Your task to perform on an android device: Go to ESPN.com Image 0: 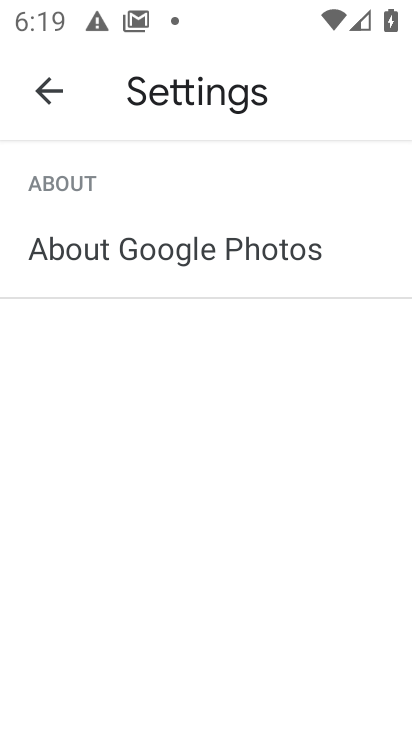
Step 0: press home button
Your task to perform on an android device: Go to ESPN.com Image 1: 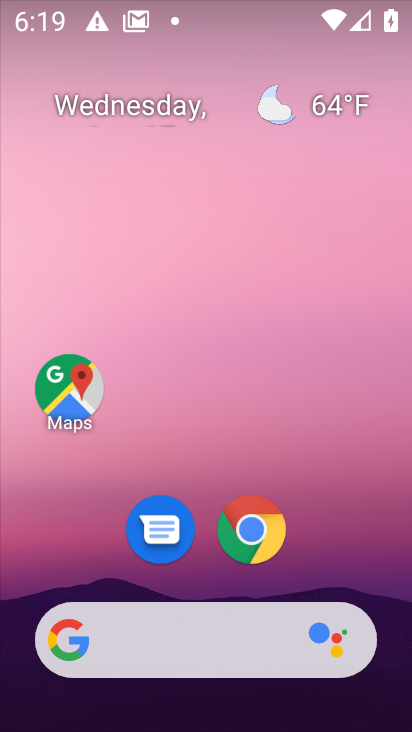
Step 1: click (259, 531)
Your task to perform on an android device: Go to ESPN.com Image 2: 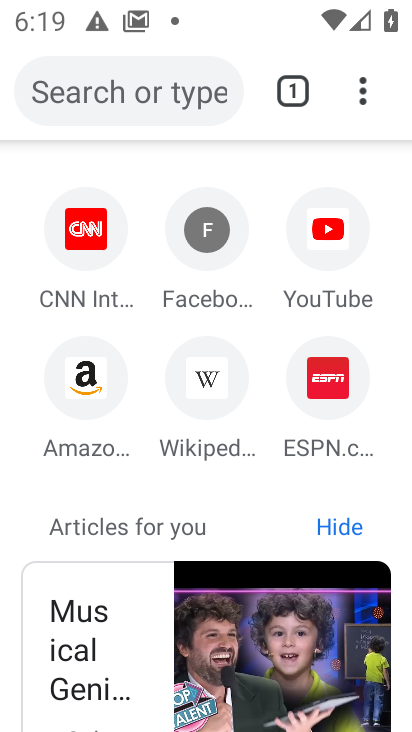
Step 2: click (332, 377)
Your task to perform on an android device: Go to ESPN.com Image 3: 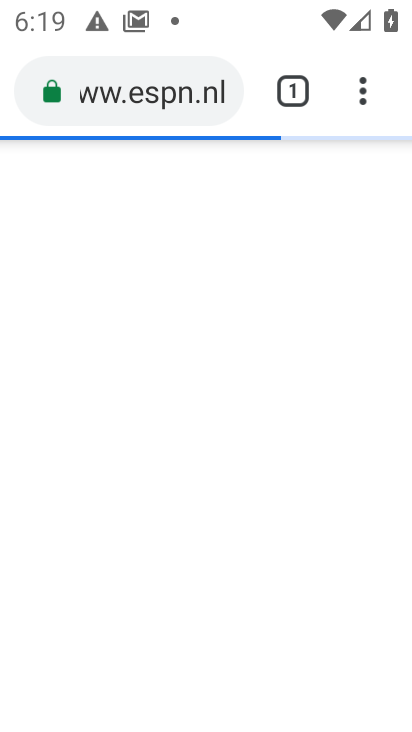
Step 3: task complete